Your task to perform on an android device: Set the phone to "Do not disturb". Image 0: 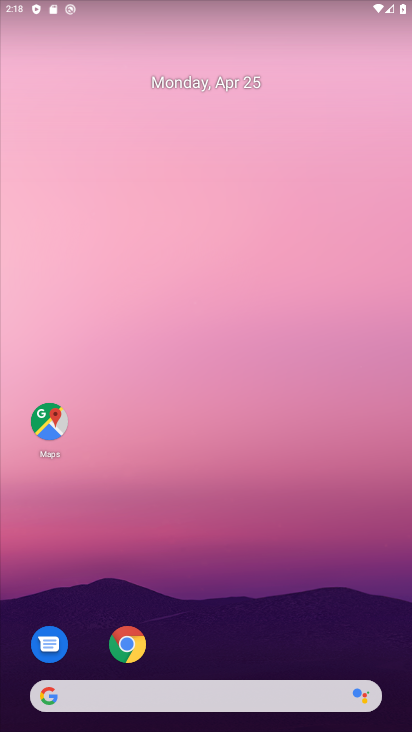
Step 0: drag from (271, 639) to (201, 241)
Your task to perform on an android device: Set the phone to "Do not disturb". Image 1: 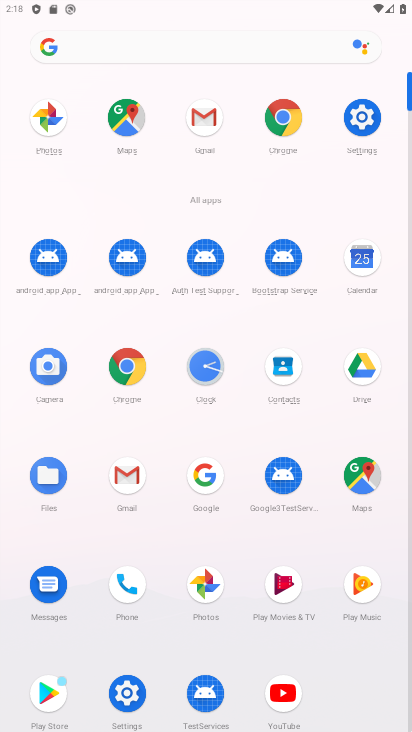
Step 1: click (363, 129)
Your task to perform on an android device: Set the phone to "Do not disturb". Image 2: 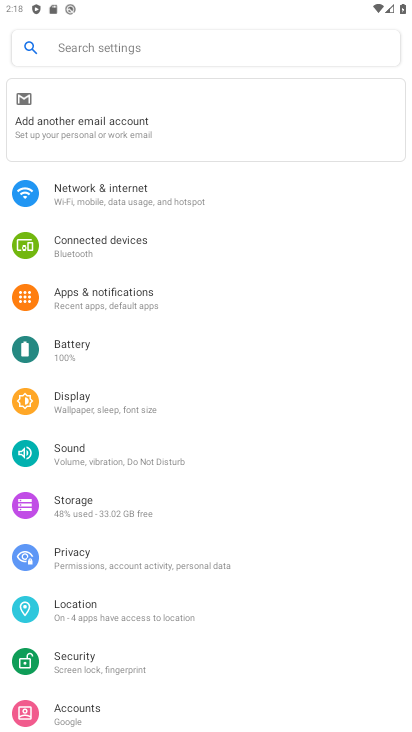
Step 2: drag from (203, 620) to (136, 343)
Your task to perform on an android device: Set the phone to "Do not disturb". Image 3: 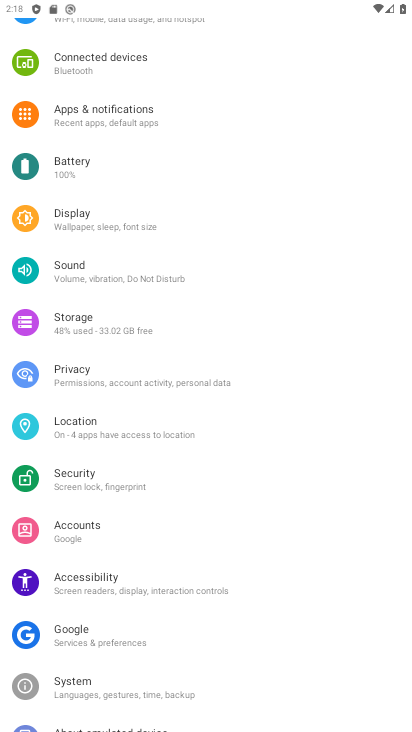
Step 3: click (239, 277)
Your task to perform on an android device: Set the phone to "Do not disturb". Image 4: 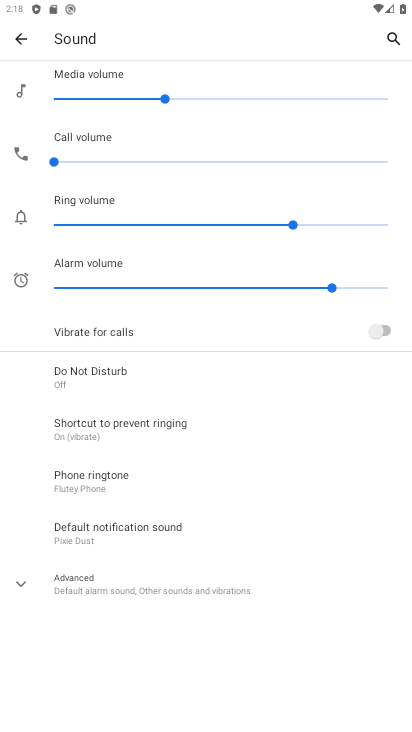
Step 4: click (366, 382)
Your task to perform on an android device: Set the phone to "Do not disturb". Image 5: 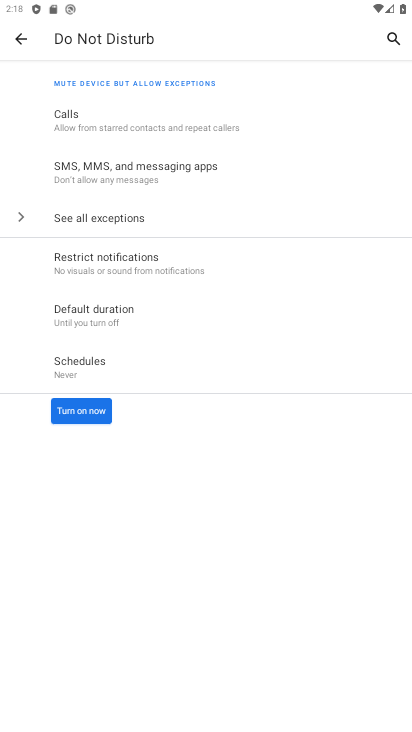
Step 5: click (64, 412)
Your task to perform on an android device: Set the phone to "Do not disturb". Image 6: 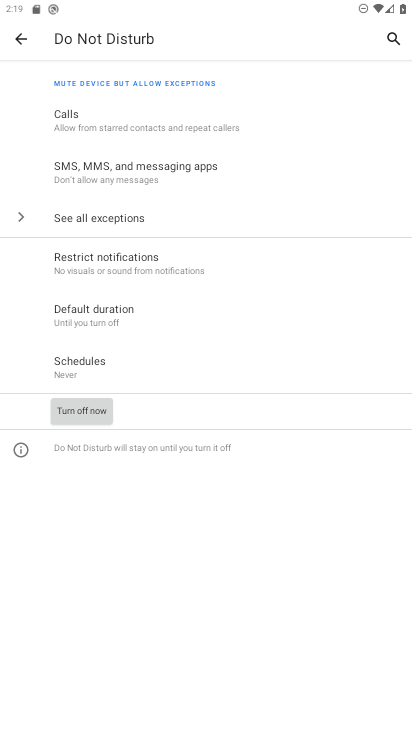
Step 6: task complete